Your task to perform on an android device: see tabs open on other devices in the chrome app Image 0: 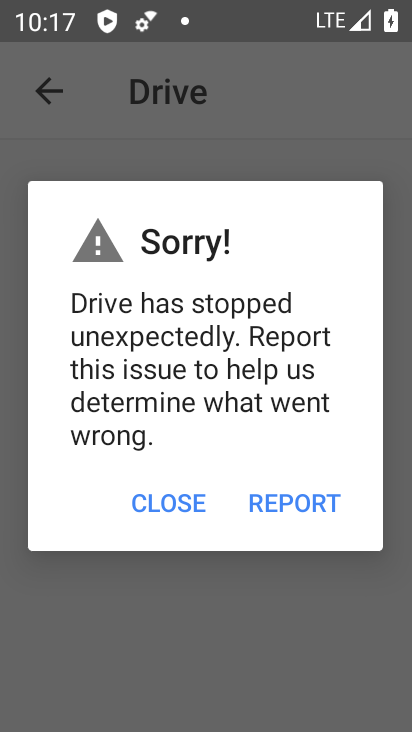
Step 0: press home button
Your task to perform on an android device: see tabs open on other devices in the chrome app Image 1: 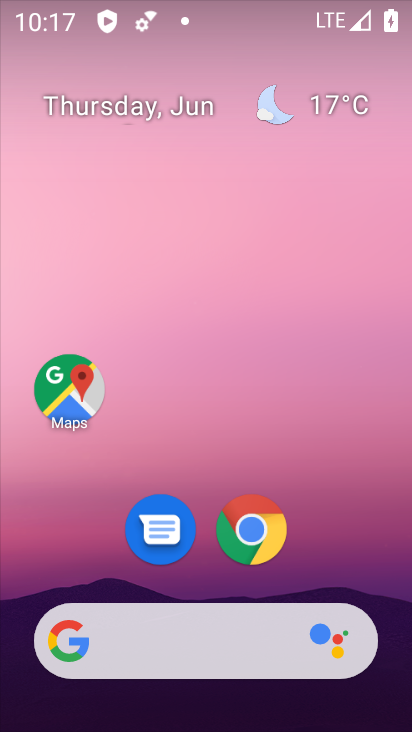
Step 1: click (260, 532)
Your task to perform on an android device: see tabs open on other devices in the chrome app Image 2: 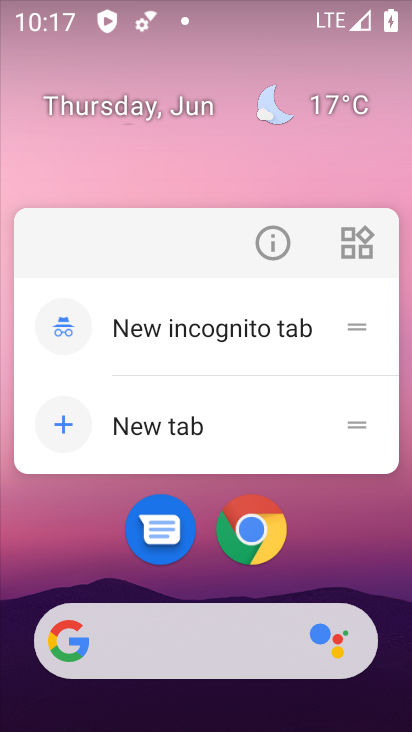
Step 2: click (244, 531)
Your task to perform on an android device: see tabs open on other devices in the chrome app Image 3: 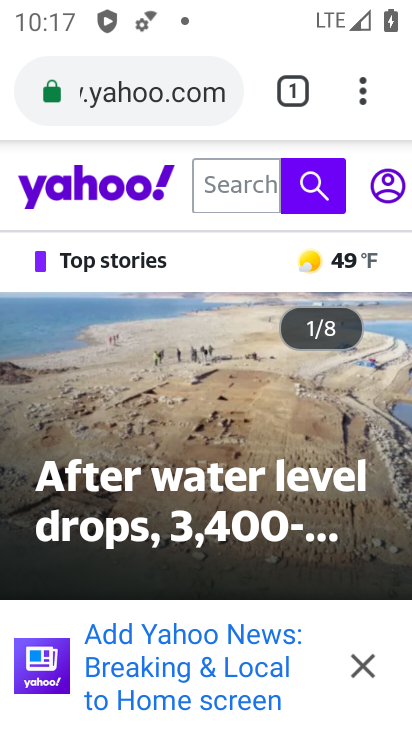
Step 3: click (368, 90)
Your task to perform on an android device: see tabs open on other devices in the chrome app Image 4: 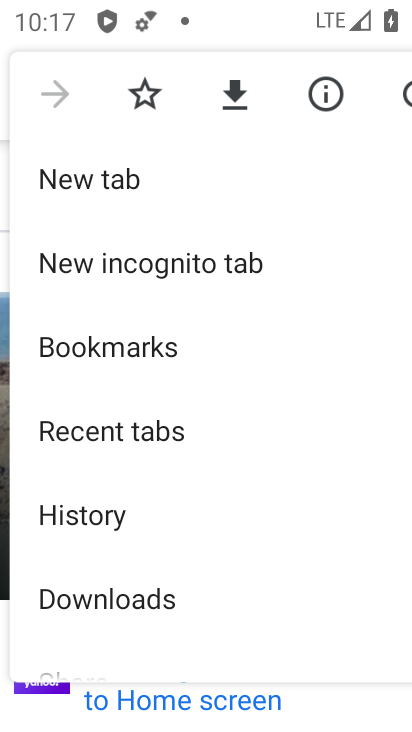
Step 4: click (87, 436)
Your task to perform on an android device: see tabs open on other devices in the chrome app Image 5: 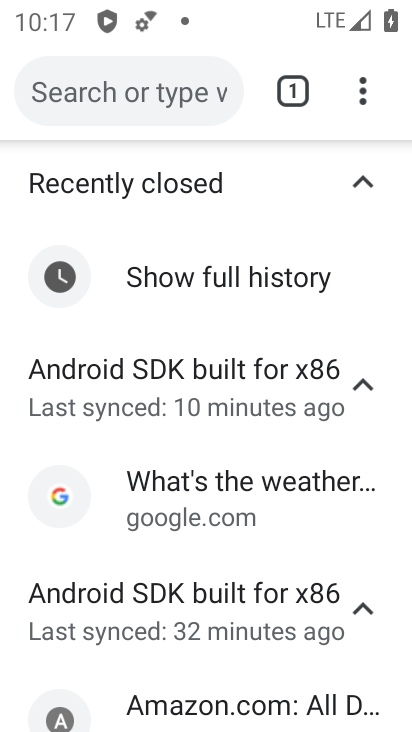
Step 5: task complete